Your task to perform on an android device: empty trash in the gmail app Image 0: 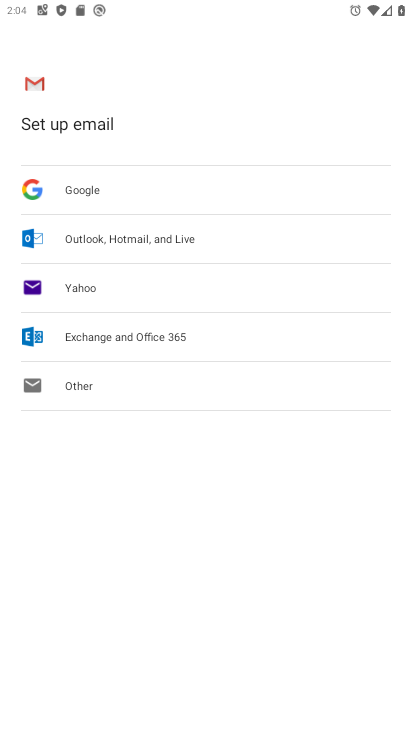
Step 0: press home button
Your task to perform on an android device: empty trash in the gmail app Image 1: 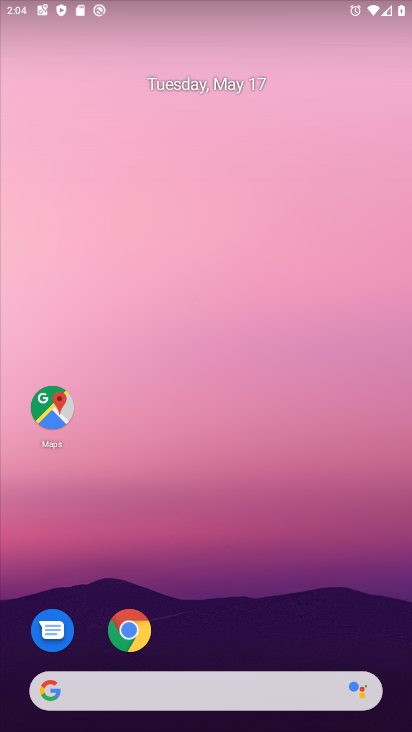
Step 1: drag from (301, 578) to (257, 282)
Your task to perform on an android device: empty trash in the gmail app Image 2: 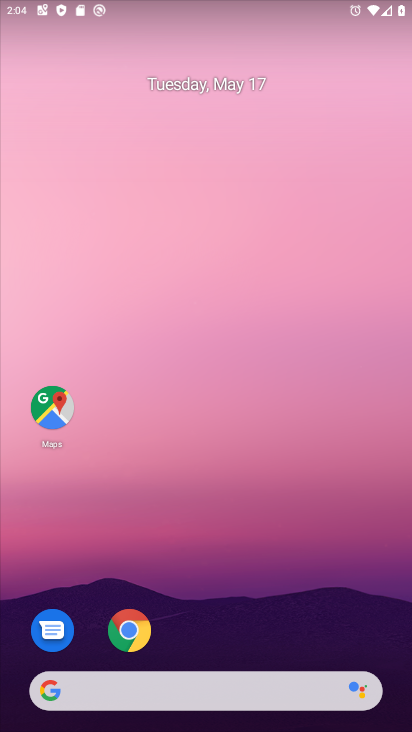
Step 2: drag from (305, 593) to (276, 122)
Your task to perform on an android device: empty trash in the gmail app Image 3: 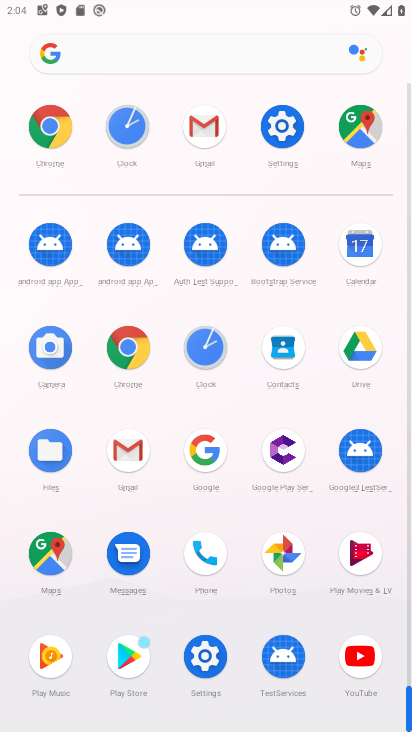
Step 3: click (122, 454)
Your task to perform on an android device: empty trash in the gmail app Image 4: 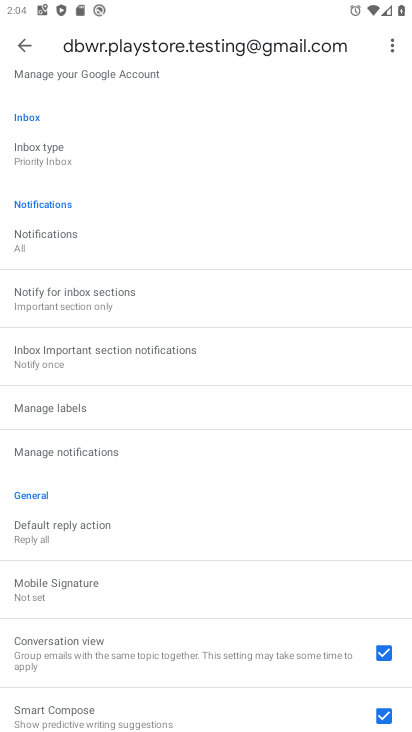
Step 4: click (18, 49)
Your task to perform on an android device: empty trash in the gmail app Image 5: 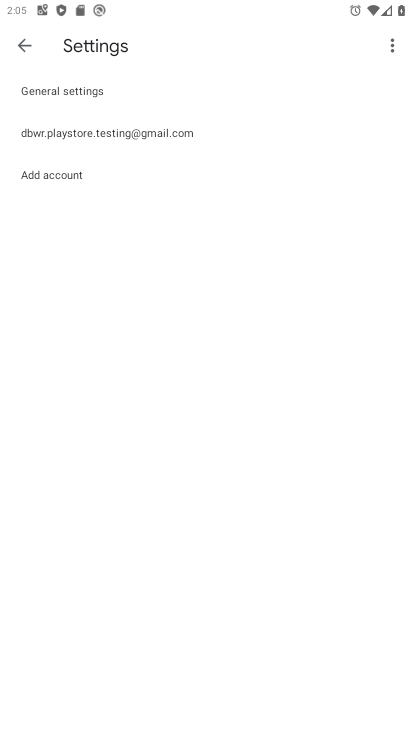
Step 5: click (18, 49)
Your task to perform on an android device: empty trash in the gmail app Image 6: 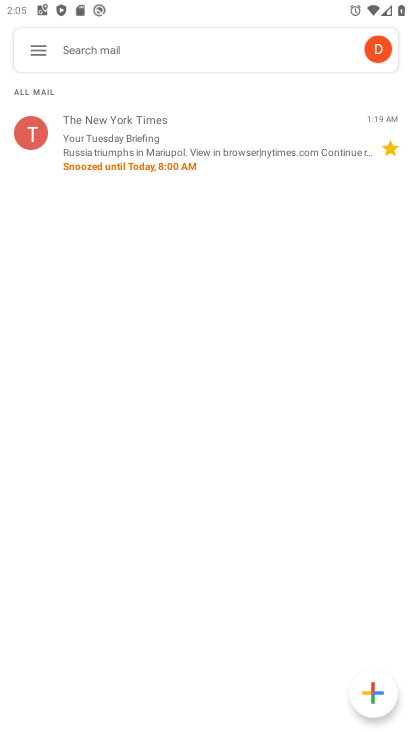
Step 6: click (41, 42)
Your task to perform on an android device: empty trash in the gmail app Image 7: 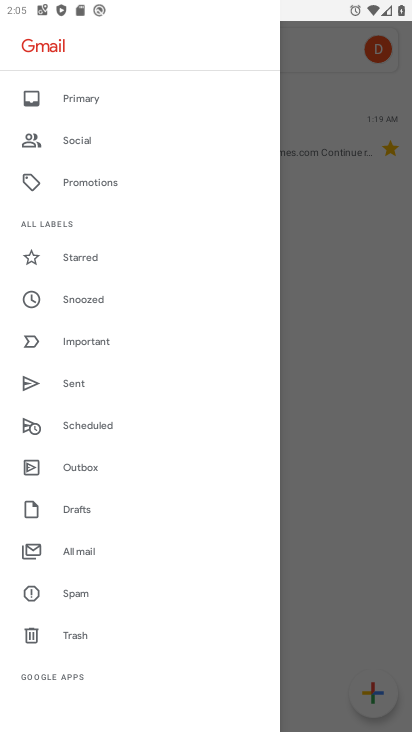
Step 7: click (99, 635)
Your task to perform on an android device: empty trash in the gmail app Image 8: 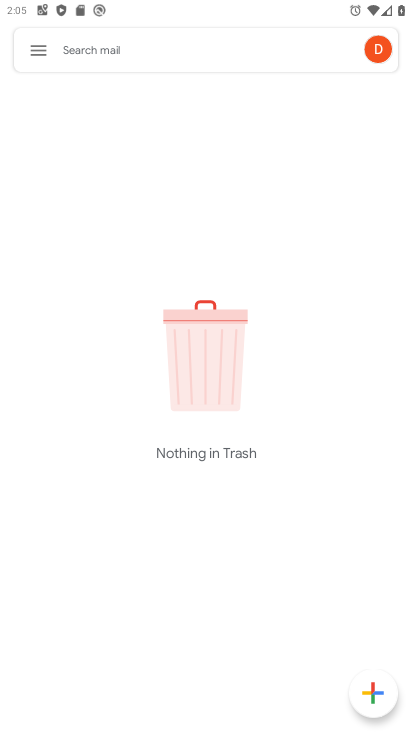
Step 8: task complete